Your task to perform on an android device: What's on my calendar today? Image 0: 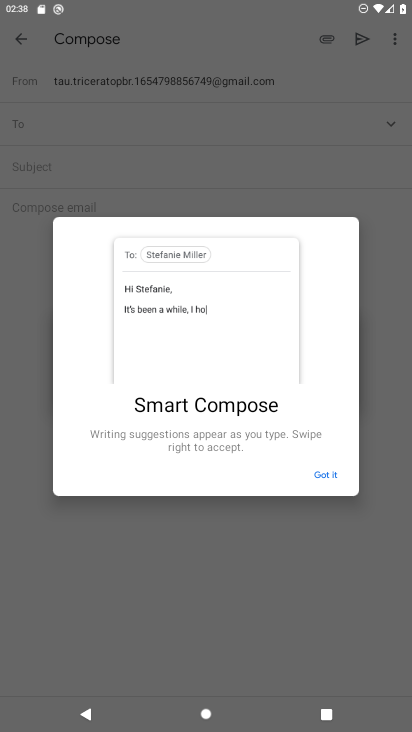
Step 0: press home button
Your task to perform on an android device: What's on my calendar today? Image 1: 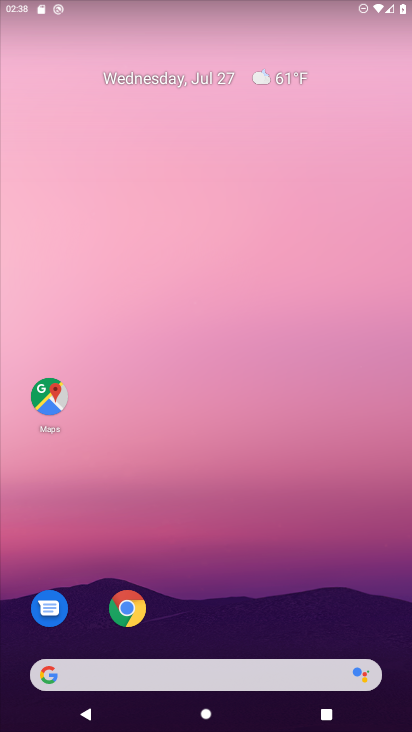
Step 1: drag from (238, 642) to (274, 0)
Your task to perform on an android device: What's on my calendar today? Image 2: 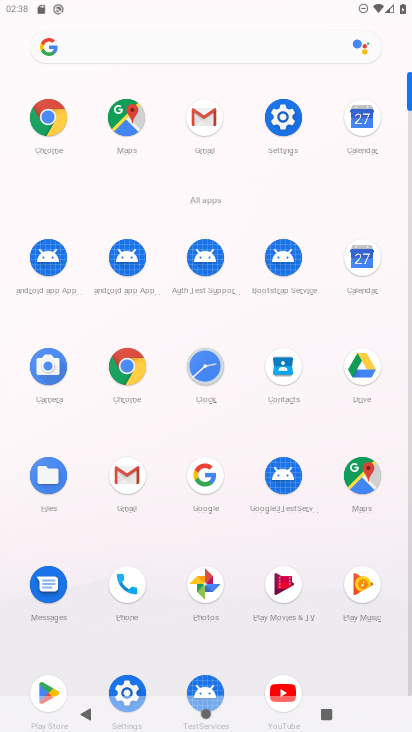
Step 2: click (364, 252)
Your task to perform on an android device: What's on my calendar today? Image 3: 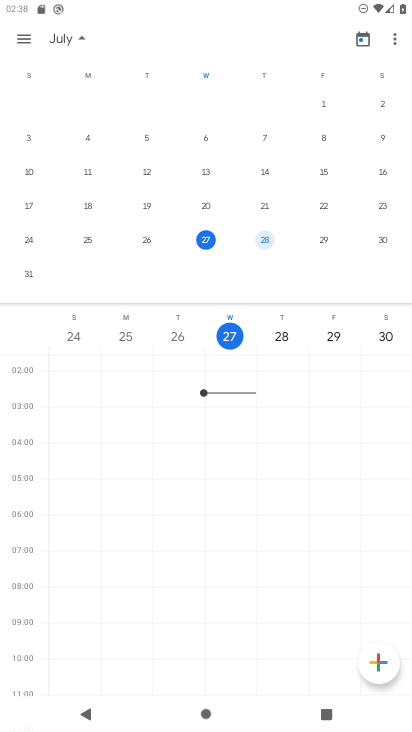
Step 3: click (23, 31)
Your task to perform on an android device: What's on my calendar today? Image 4: 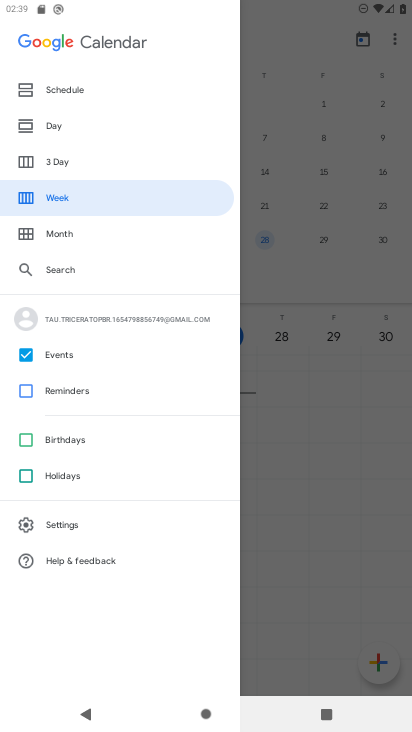
Step 4: click (66, 128)
Your task to perform on an android device: What's on my calendar today? Image 5: 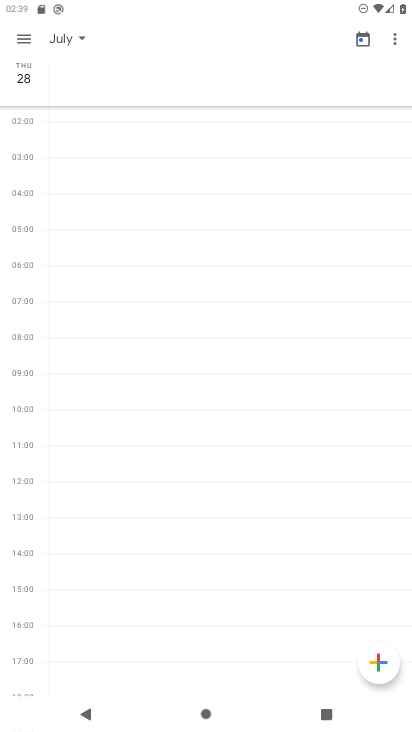
Step 5: task complete